Your task to perform on an android device: change timer sound Image 0: 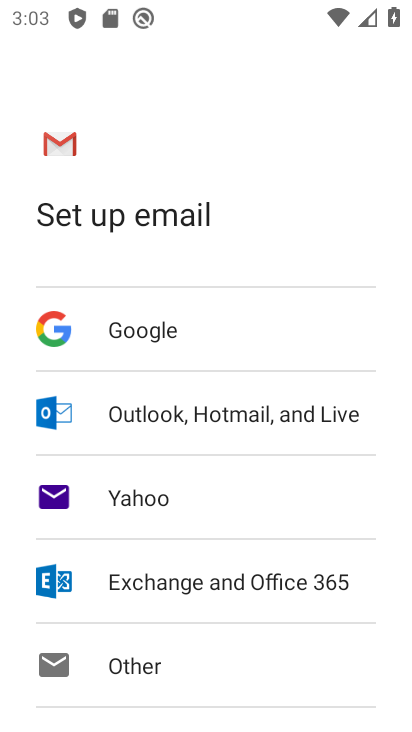
Step 0: press home button
Your task to perform on an android device: change timer sound Image 1: 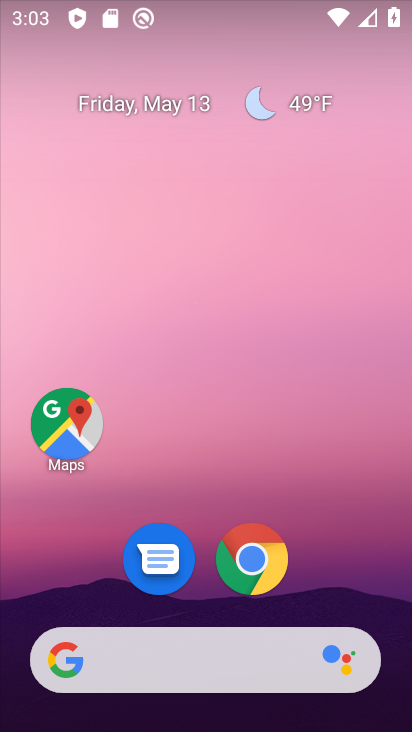
Step 1: drag from (387, 633) to (292, 57)
Your task to perform on an android device: change timer sound Image 2: 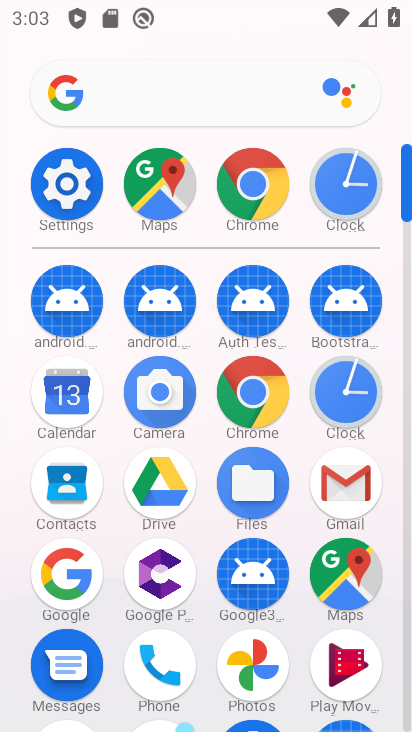
Step 2: click (347, 396)
Your task to perform on an android device: change timer sound Image 3: 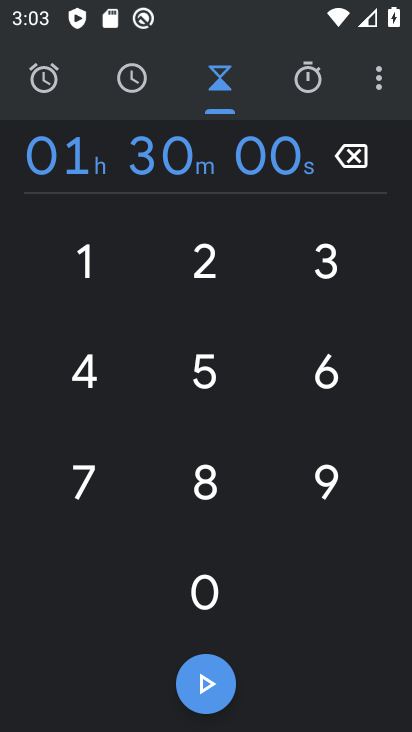
Step 3: click (378, 76)
Your task to perform on an android device: change timer sound Image 4: 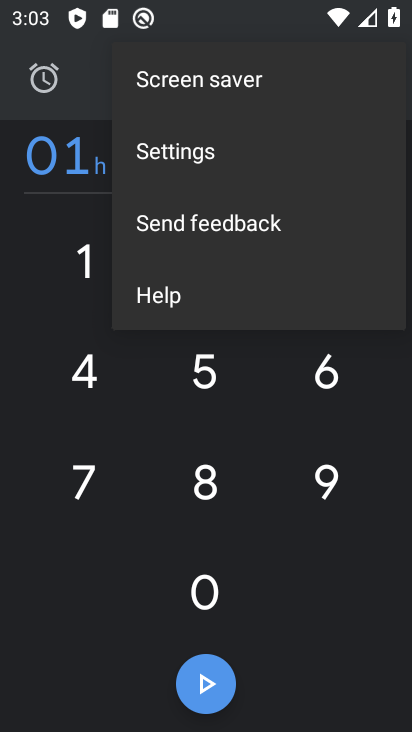
Step 4: click (187, 155)
Your task to perform on an android device: change timer sound Image 5: 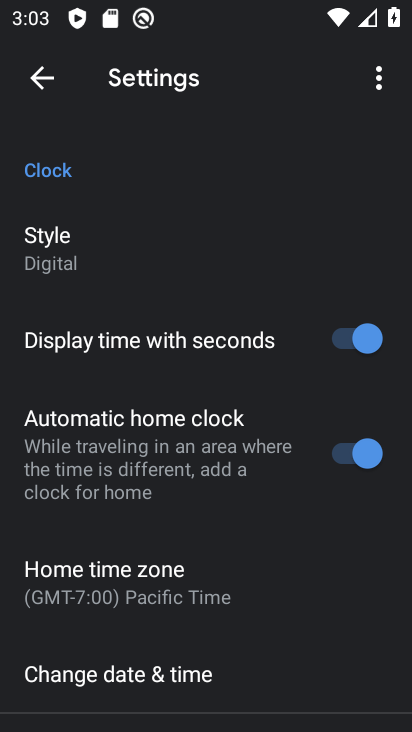
Step 5: drag from (245, 618) to (203, 140)
Your task to perform on an android device: change timer sound Image 6: 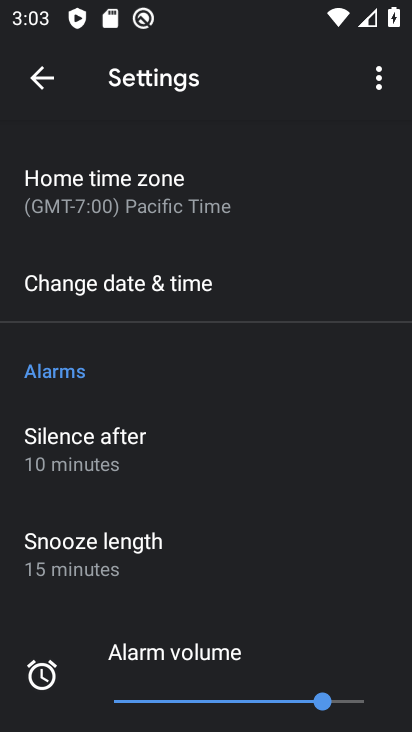
Step 6: drag from (245, 621) to (235, 94)
Your task to perform on an android device: change timer sound Image 7: 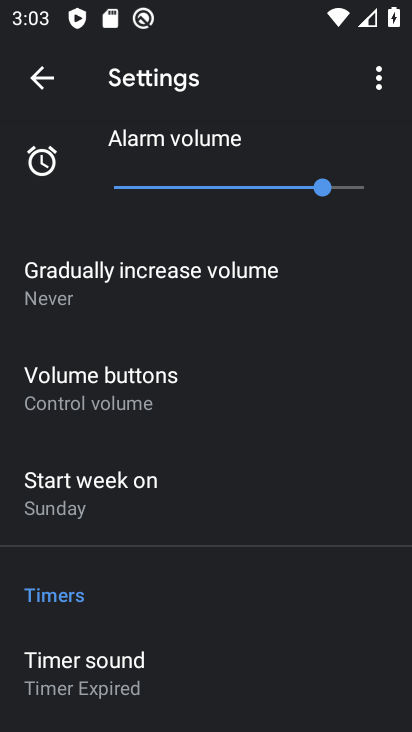
Step 7: click (74, 683)
Your task to perform on an android device: change timer sound Image 8: 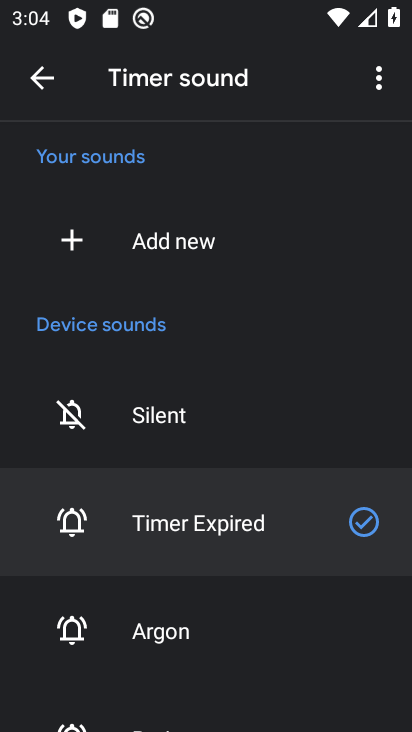
Step 8: drag from (253, 659) to (275, 165)
Your task to perform on an android device: change timer sound Image 9: 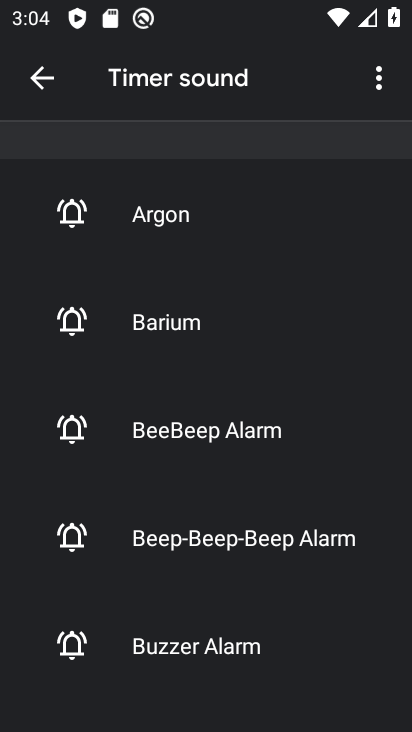
Step 9: click (191, 541)
Your task to perform on an android device: change timer sound Image 10: 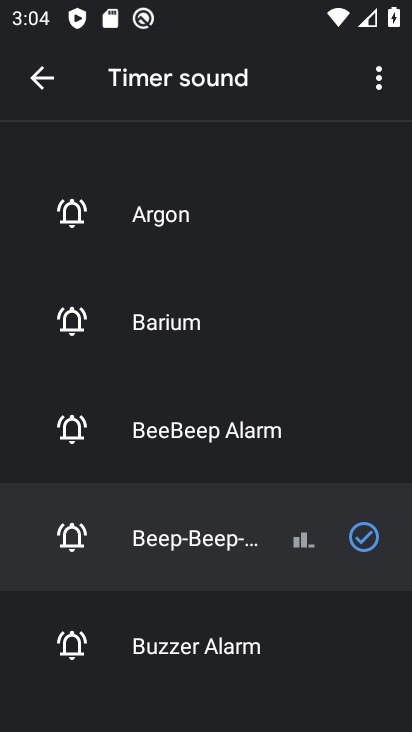
Step 10: task complete